Your task to perform on an android device: turn off notifications in google photos Image 0: 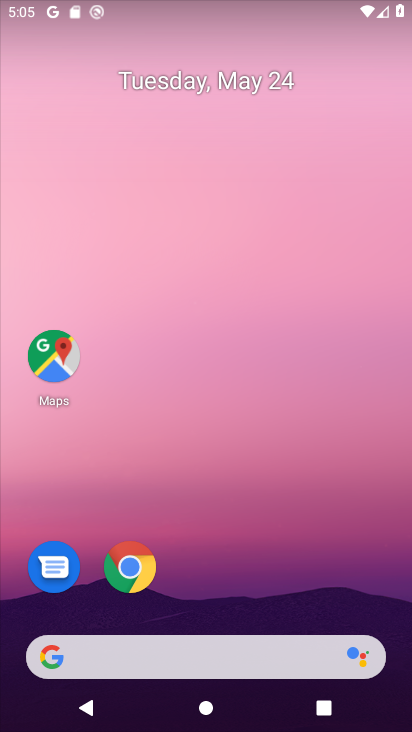
Step 0: drag from (239, 588) to (239, 40)
Your task to perform on an android device: turn off notifications in google photos Image 1: 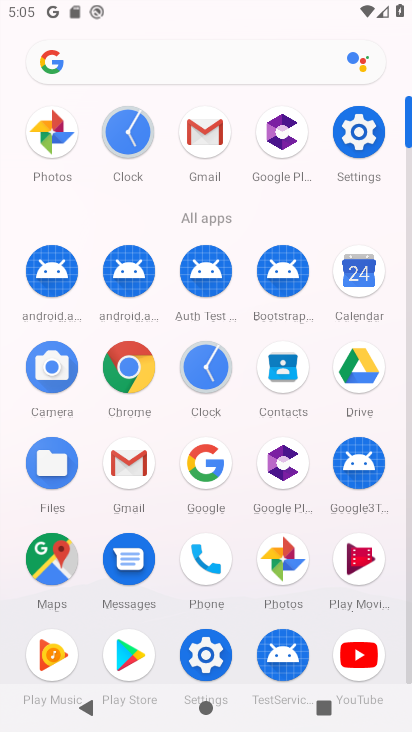
Step 1: click (51, 132)
Your task to perform on an android device: turn off notifications in google photos Image 2: 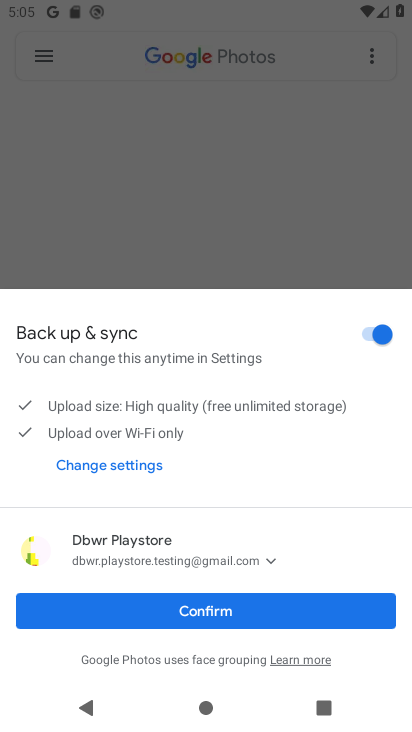
Step 2: click (194, 605)
Your task to perform on an android device: turn off notifications in google photos Image 3: 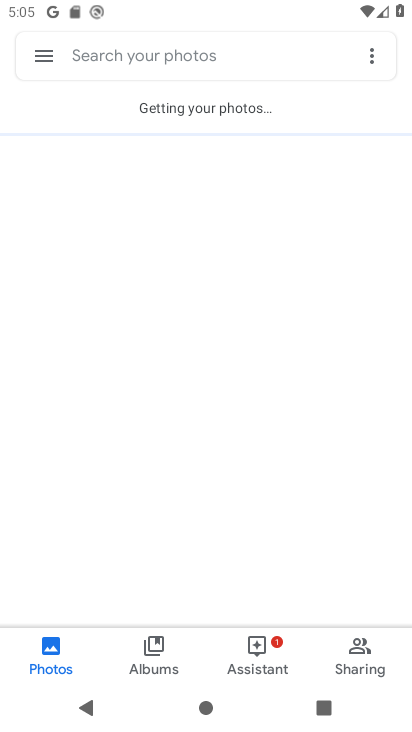
Step 3: click (45, 59)
Your task to perform on an android device: turn off notifications in google photos Image 4: 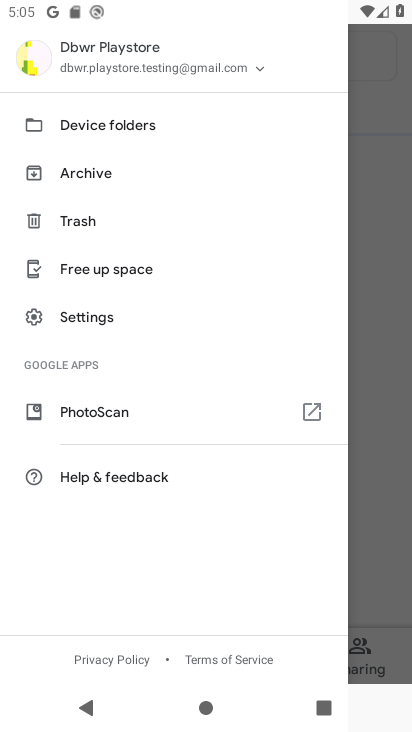
Step 4: click (88, 315)
Your task to perform on an android device: turn off notifications in google photos Image 5: 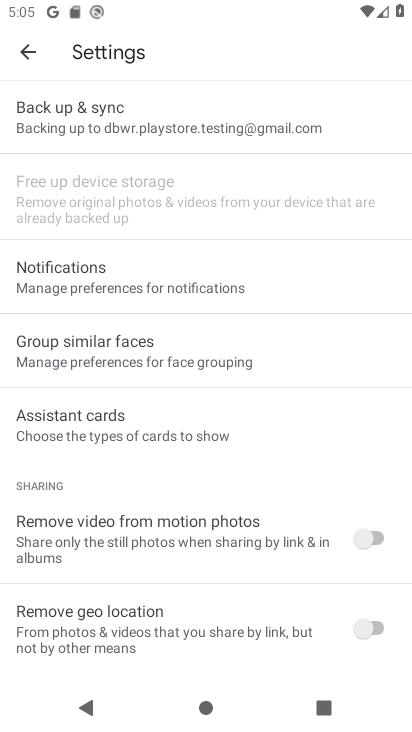
Step 5: click (82, 275)
Your task to perform on an android device: turn off notifications in google photos Image 6: 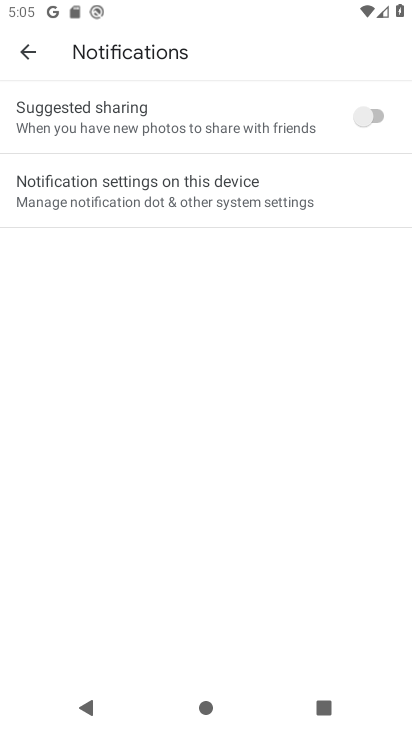
Step 6: click (92, 193)
Your task to perform on an android device: turn off notifications in google photos Image 7: 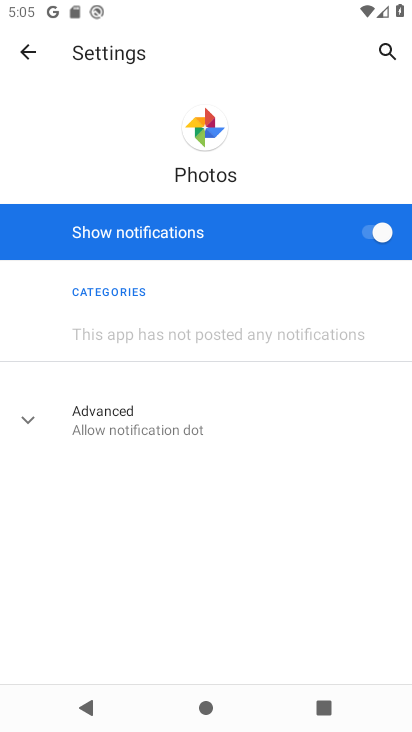
Step 7: click (367, 238)
Your task to perform on an android device: turn off notifications in google photos Image 8: 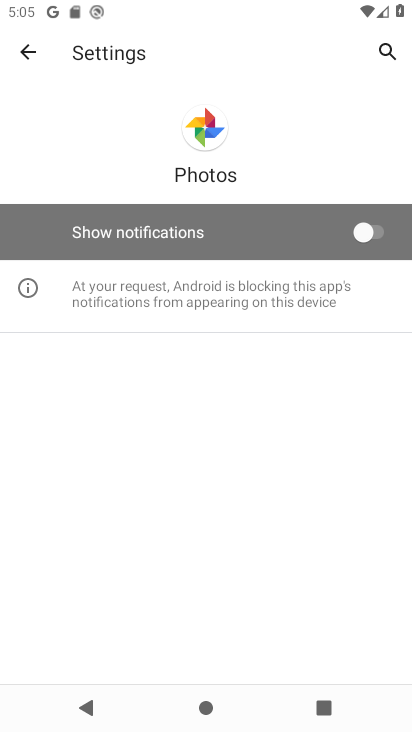
Step 8: task complete